Your task to perform on an android device: change your default location settings in chrome Image 0: 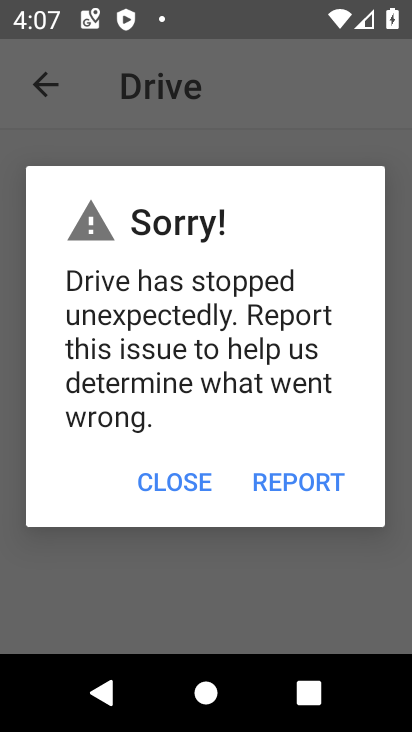
Step 0: press home button
Your task to perform on an android device: change your default location settings in chrome Image 1: 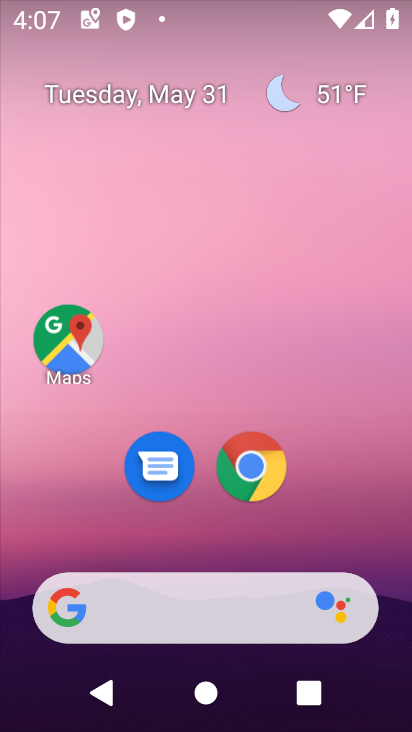
Step 1: click (247, 457)
Your task to perform on an android device: change your default location settings in chrome Image 2: 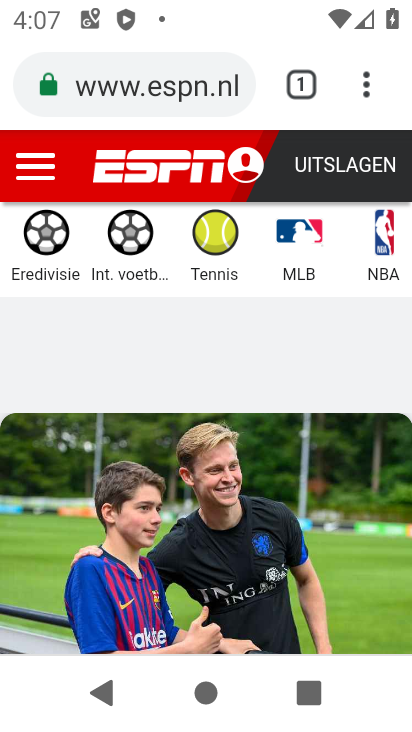
Step 2: click (363, 79)
Your task to perform on an android device: change your default location settings in chrome Image 3: 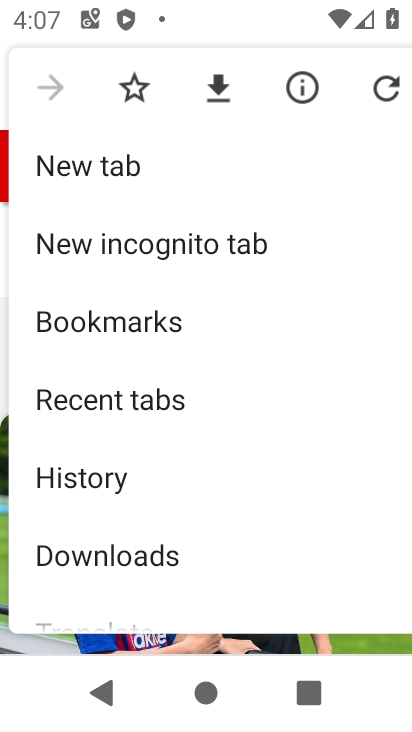
Step 3: drag from (199, 577) to (193, 91)
Your task to perform on an android device: change your default location settings in chrome Image 4: 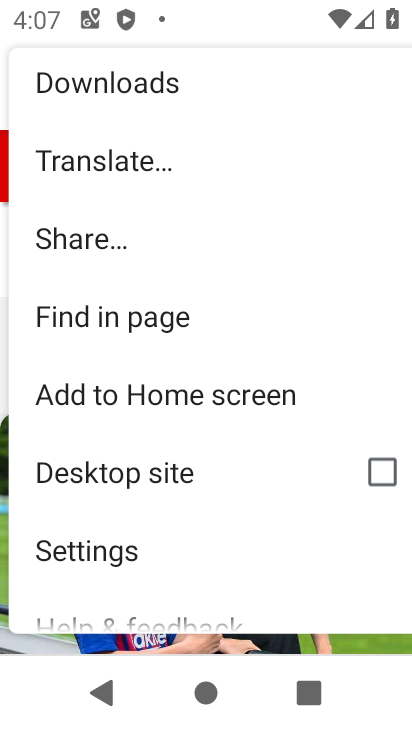
Step 4: click (157, 550)
Your task to perform on an android device: change your default location settings in chrome Image 5: 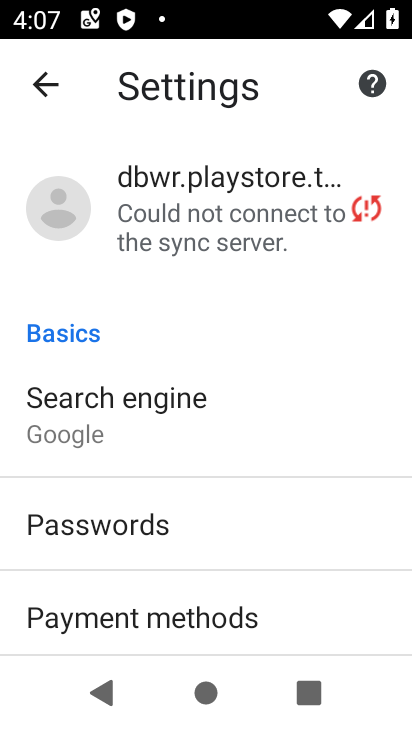
Step 5: drag from (280, 617) to (289, 139)
Your task to perform on an android device: change your default location settings in chrome Image 6: 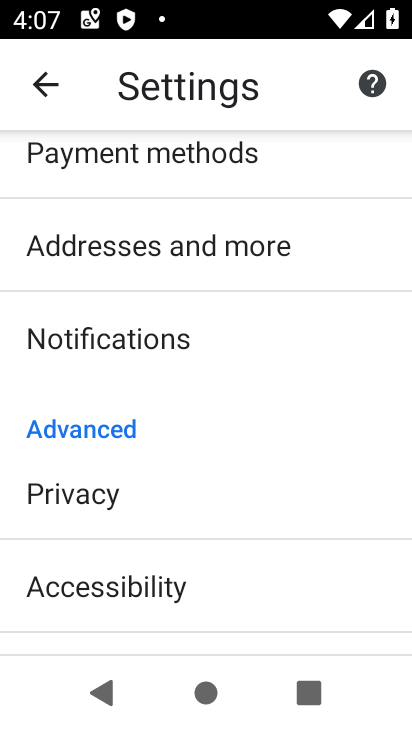
Step 6: drag from (213, 618) to (223, 155)
Your task to perform on an android device: change your default location settings in chrome Image 7: 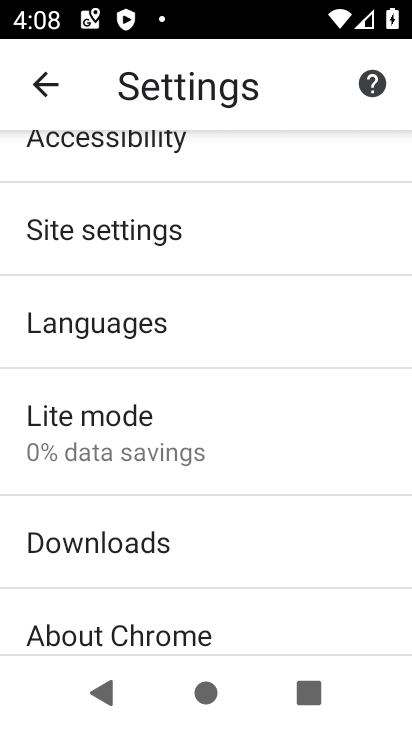
Step 7: click (200, 230)
Your task to perform on an android device: change your default location settings in chrome Image 8: 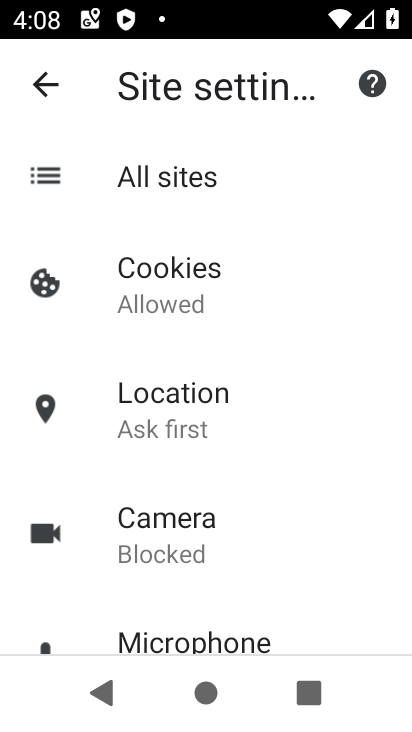
Step 8: click (82, 407)
Your task to perform on an android device: change your default location settings in chrome Image 9: 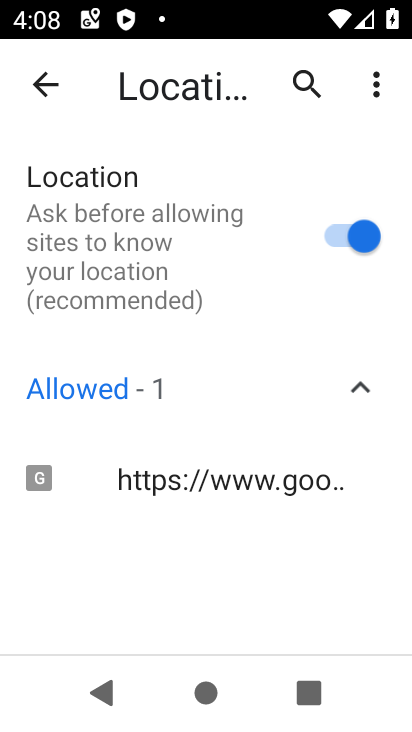
Step 9: click (339, 234)
Your task to perform on an android device: change your default location settings in chrome Image 10: 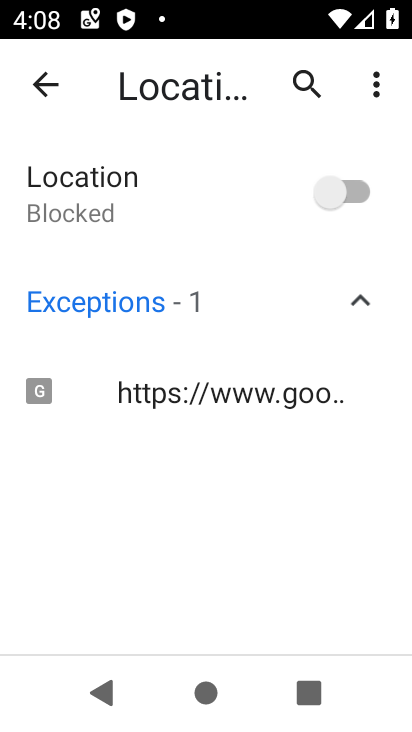
Step 10: task complete